Your task to perform on an android device: Open Maps and search for coffee Image 0: 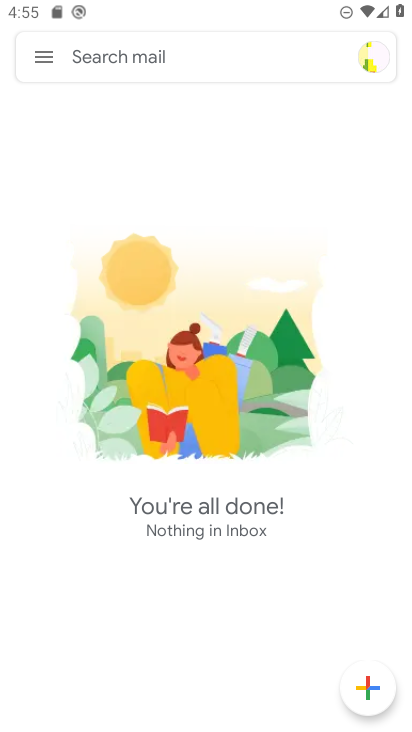
Step 0: press home button
Your task to perform on an android device: Open Maps and search for coffee Image 1: 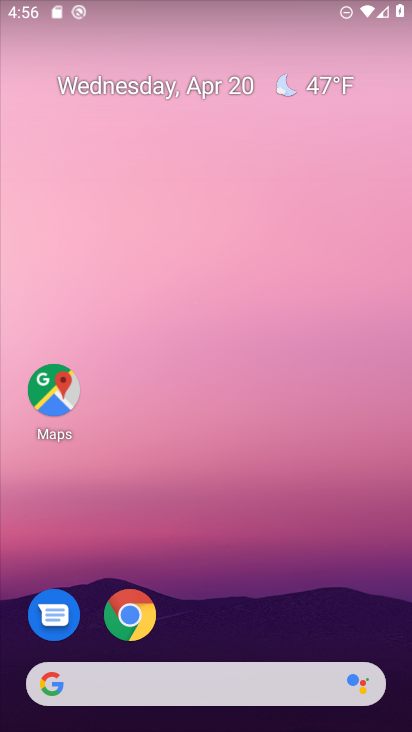
Step 1: click (61, 379)
Your task to perform on an android device: Open Maps and search for coffee Image 2: 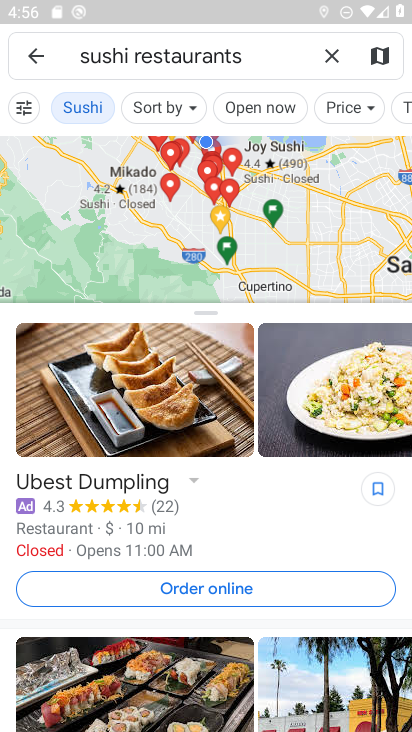
Step 2: click (333, 50)
Your task to perform on an android device: Open Maps and search for coffee Image 3: 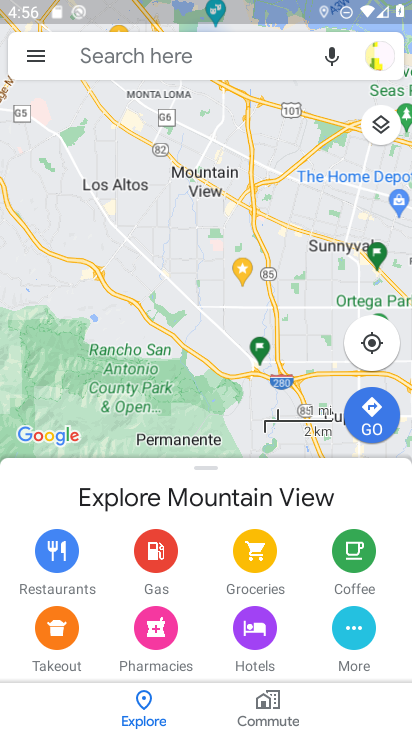
Step 3: click (152, 53)
Your task to perform on an android device: Open Maps and search for coffee Image 4: 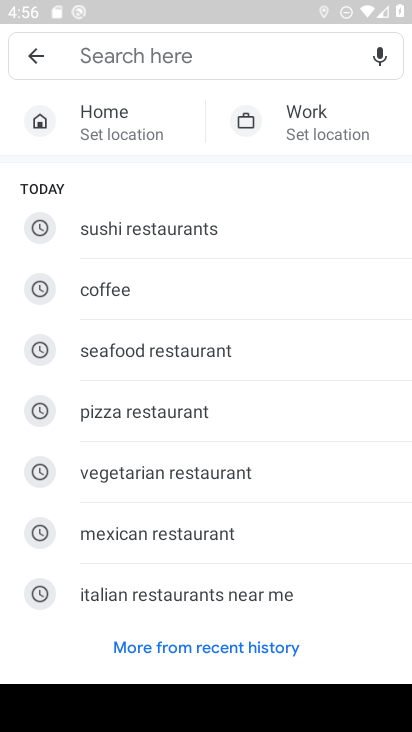
Step 4: click (130, 286)
Your task to perform on an android device: Open Maps and search for coffee Image 5: 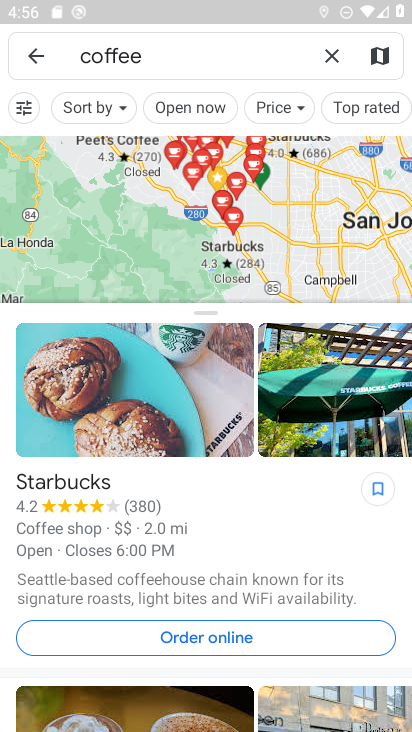
Step 5: task complete